Your task to perform on an android device: Open the stopwatch Image 0: 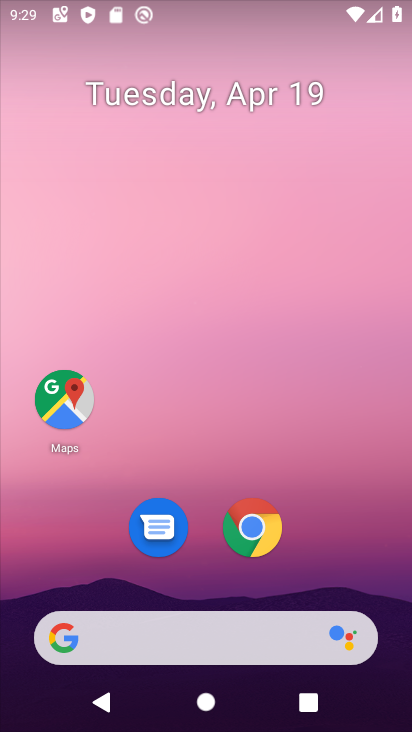
Step 0: drag from (260, 673) to (310, 73)
Your task to perform on an android device: Open the stopwatch Image 1: 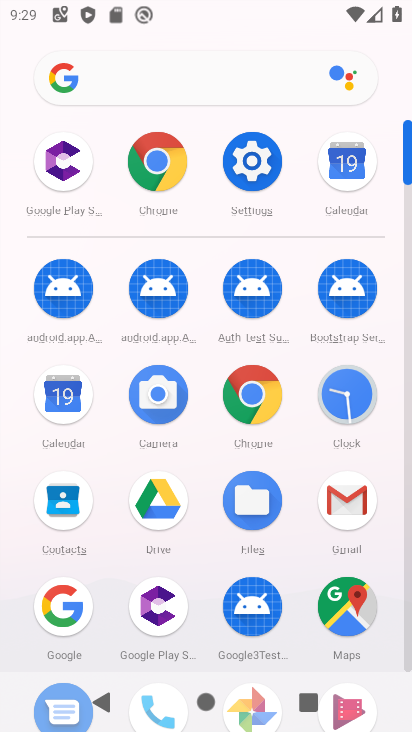
Step 1: click (352, 407)
Your task to perform on an android device: Open the stopwatch Image 2: 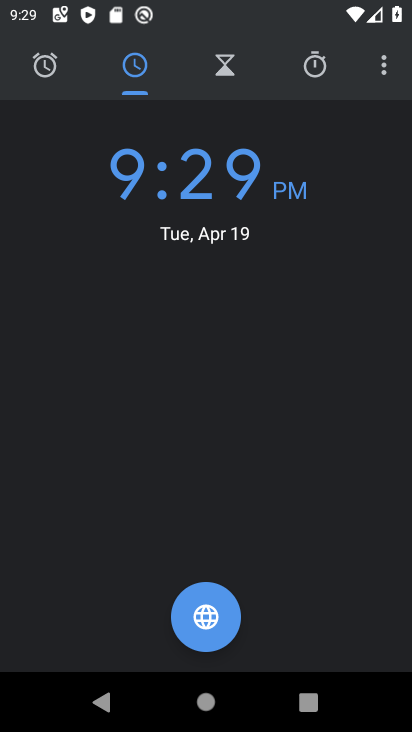
Step 2: click (300, 79)
Your task to perform on an android device: Open the stopwatch Image 3: 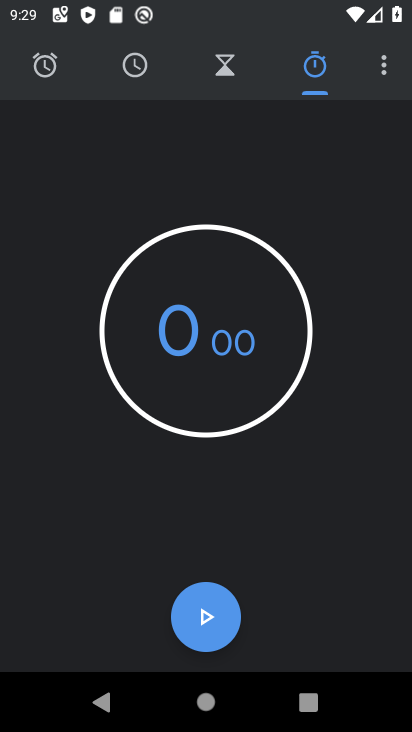
Step 3: click (197, 618)
Your task to perform on an android device: Open the stopwatch Image 4: 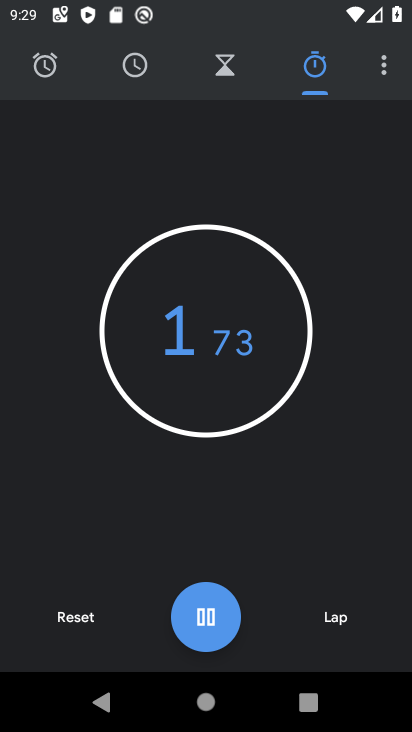
Step 4: click (216, 601)
Your task to perform on an android device: Open the stopwatch Image 5: 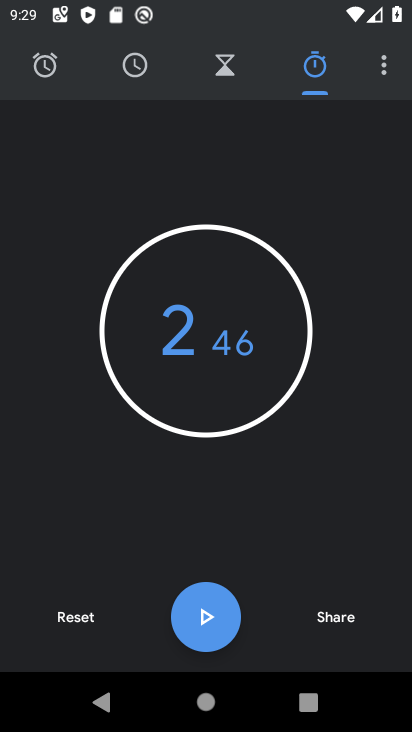
Step 5: task complete